Your task to perform on an android device: What's US dollar exchange rate against the South Korean Won? Image 0: 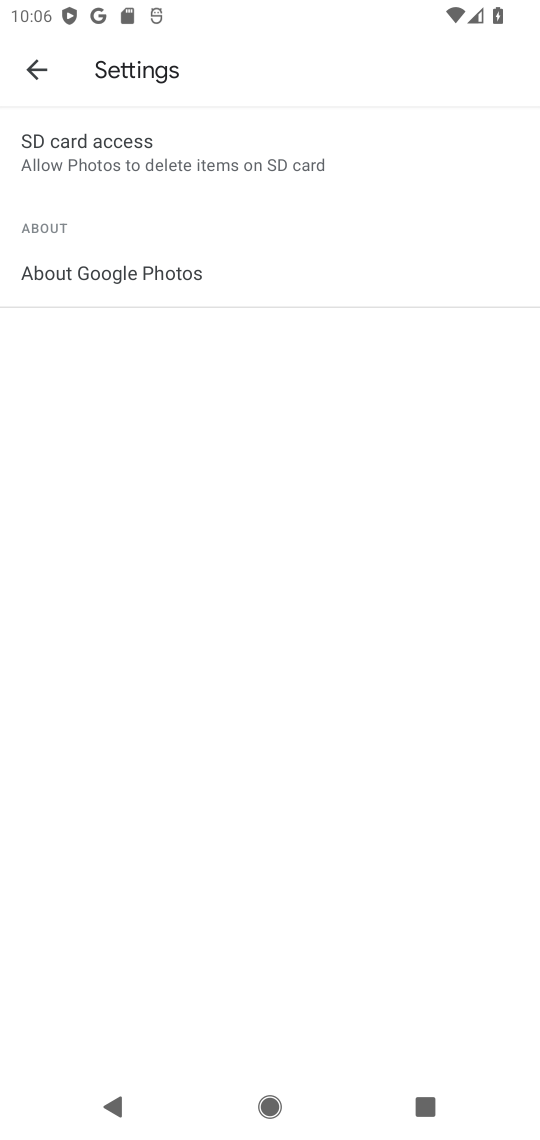
Step 0: press home button
Your task to perform on an android device: What's US dollar exchange rate against the South Korean Won? Image 1: 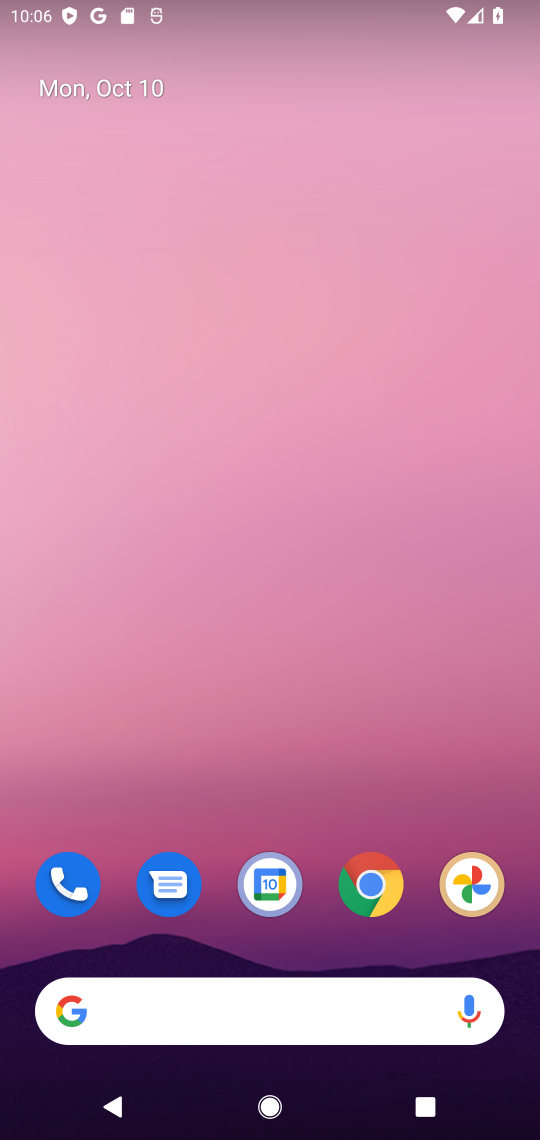
Step 1: drag from (301, 941) to (285, 35)
Your task to perform on an android device: What's US dollar exchange rate against the South Korean Won? Image 2: 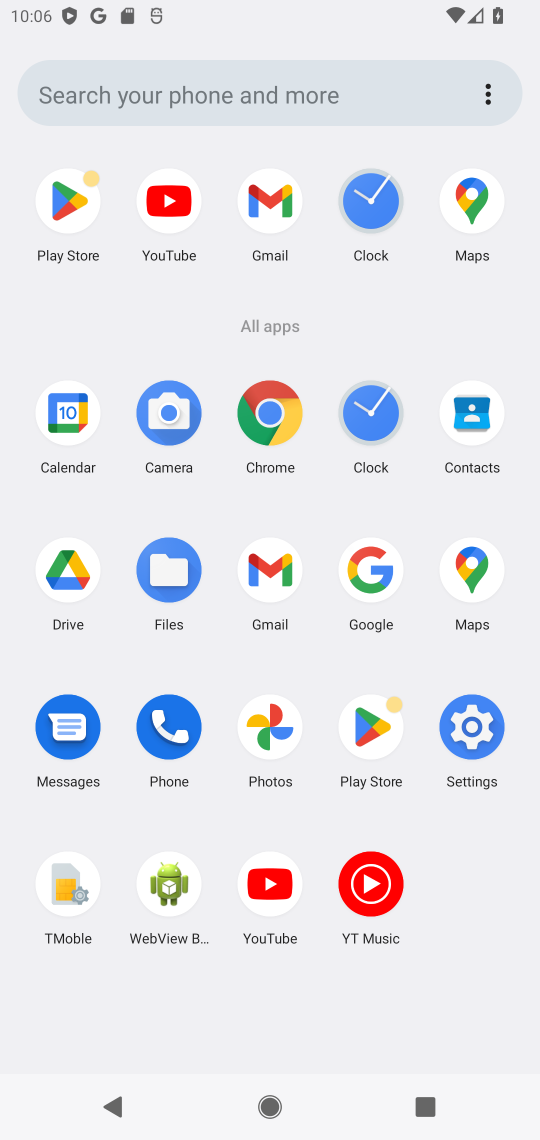
Step 2: click (361, 569)
Your task to perform on an android device: What's US dollar exchange rate against the South Korean Won? Image 3: 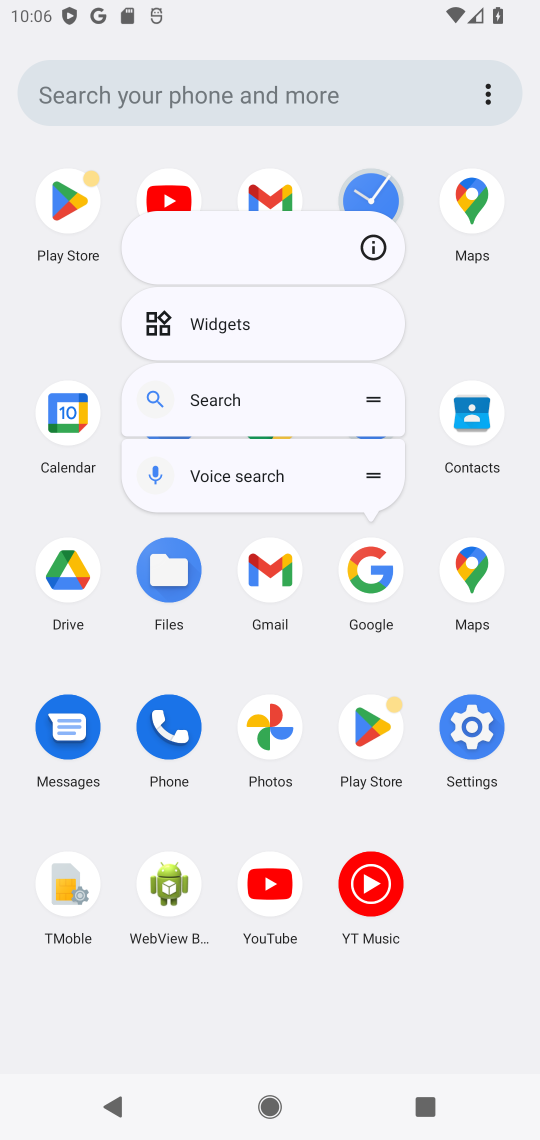
Step 3: click (434, 301)
Your task to perform on an android device: What's US dollar exchange rate against the South Korean Won? Image 4: 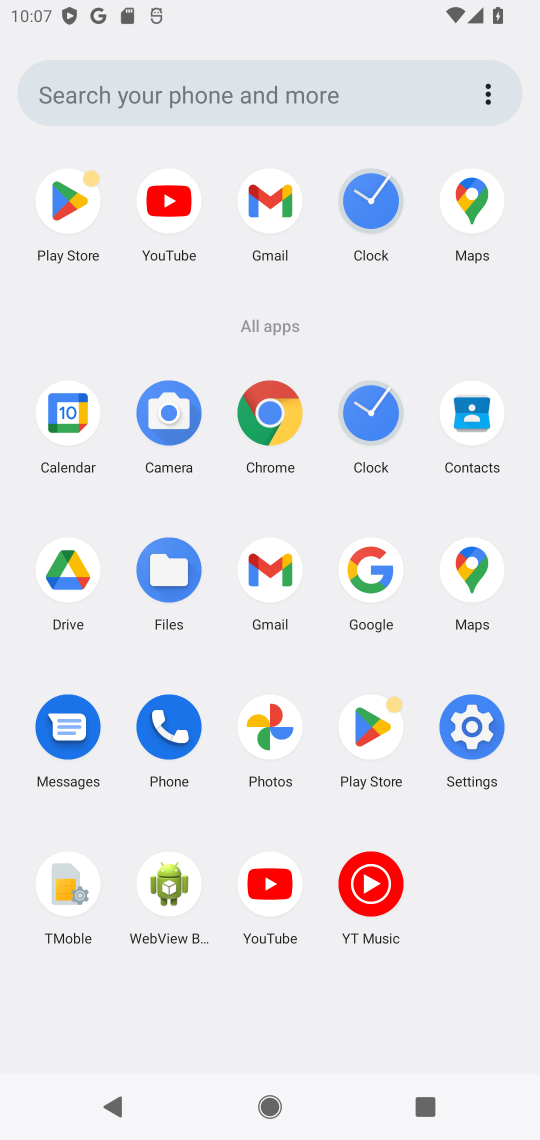
Step 4: click (375, 562)
Your task to perform on an android device: What's US dollar exchange rate against the South Korean Won? Image 5: 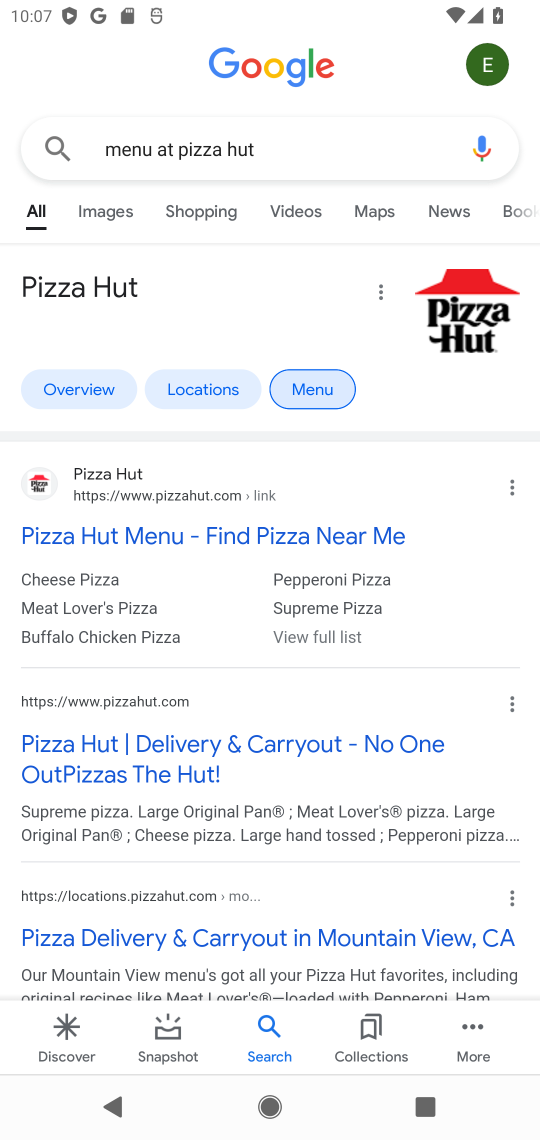
Step 5: click (315, 159)
Your task to perform on an android device: What's US dollar exchange rate against the South Korean Won? Image 6: 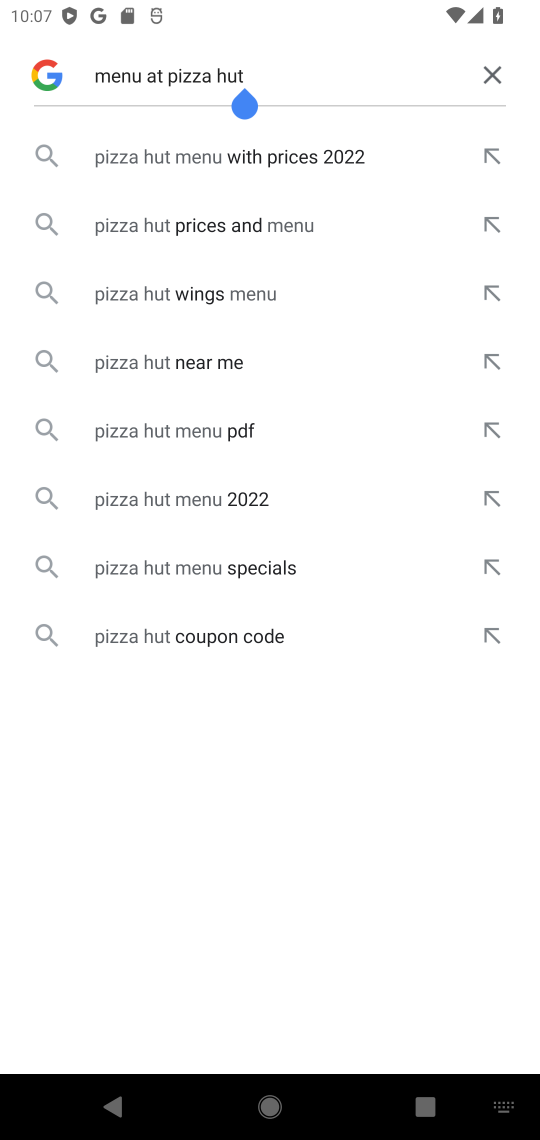
Step 6: click (499, 75)
Your task to perform on an android device: What's US dollar exchange rate against the South Korean Won? Image 7: 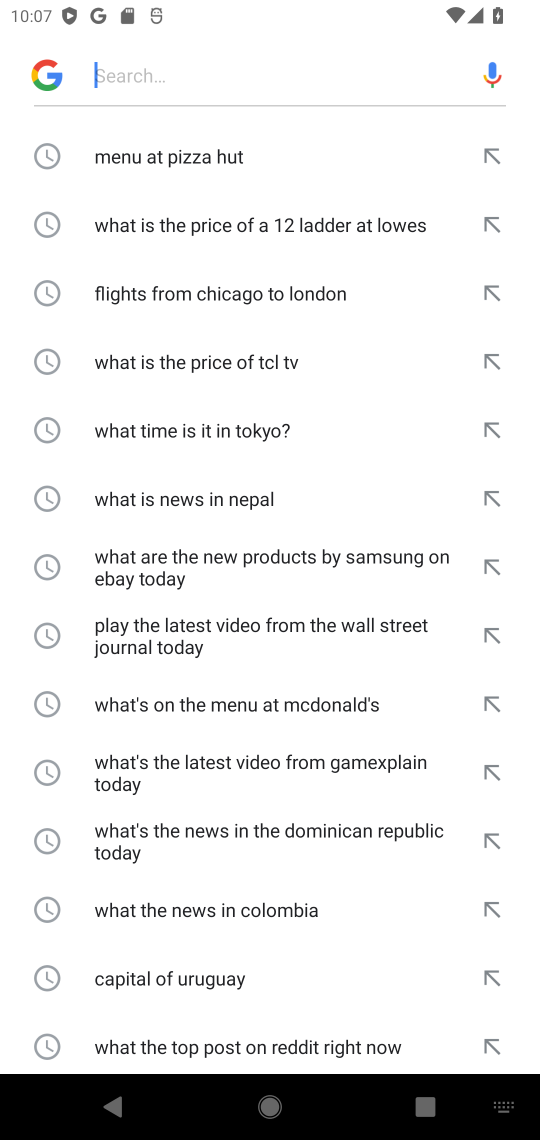
Step 7: type "What's US dollar exchange rate against the South Korean Won?"
Your task to perform on an android device: What's US dollar exchange rate against the South Korean Won? Image 8: 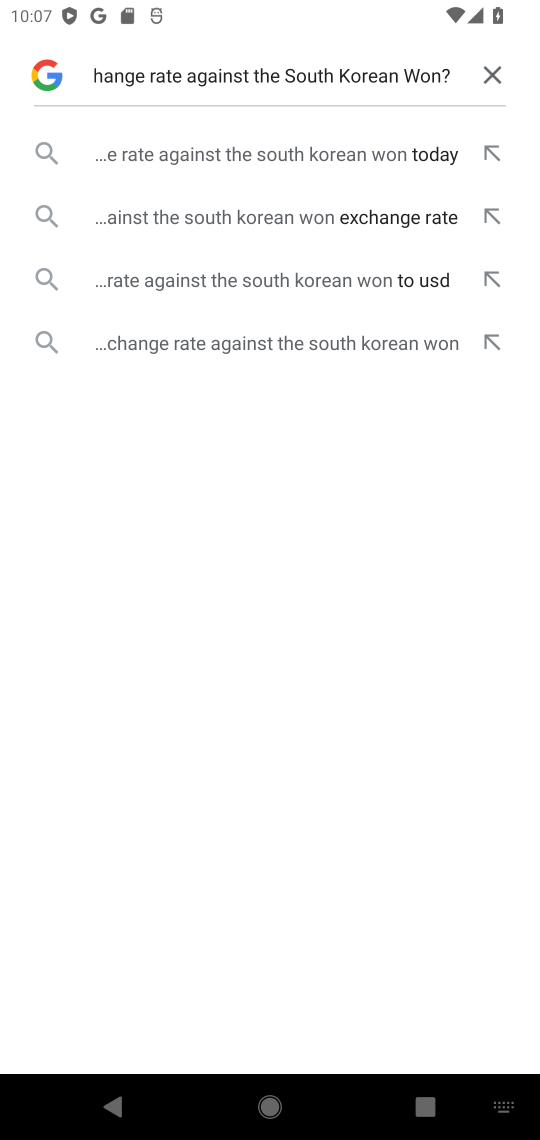
Step 8: click (350, 346)
Your task to perform on an android device: What's US dollar exchange rate against the South Korean Won? Image 9: 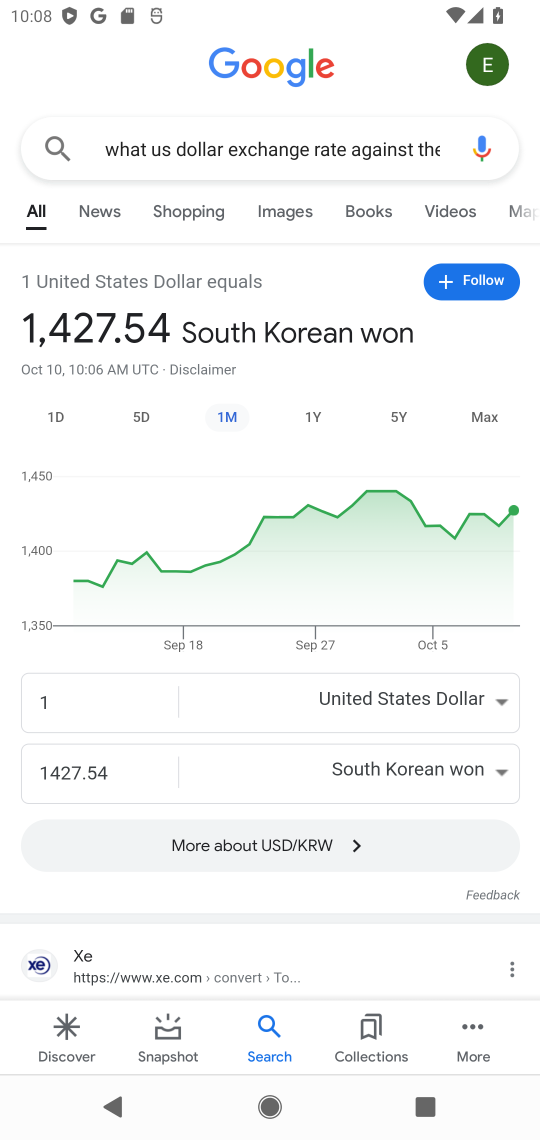
Step 9: task complete